Your task to perform on an android device: Is it going to rain tomorrow? Image 0: 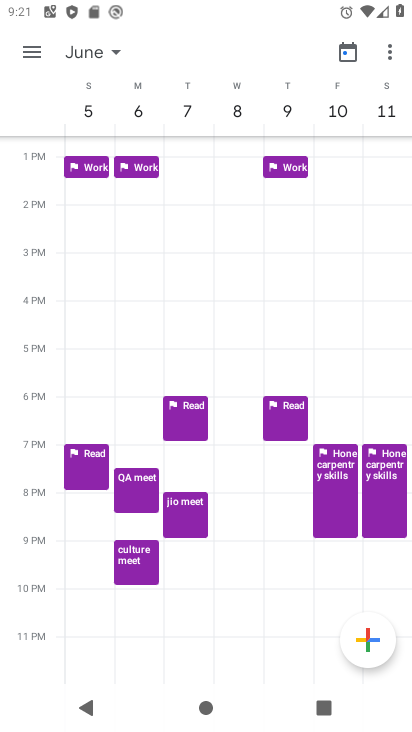
Step 0: press home button
Your task to perform on an android device: Is it going to rain tomorrow? Image 1: 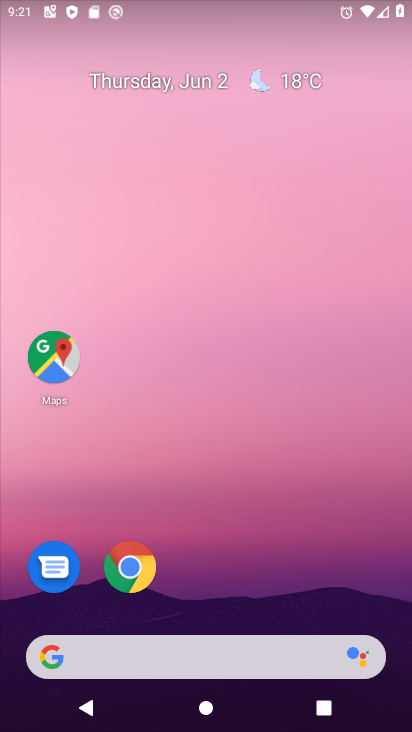
Step 1: click (290, 93)
Your task to perform on an android device: Is it going to rain tomorrow? Image 2: 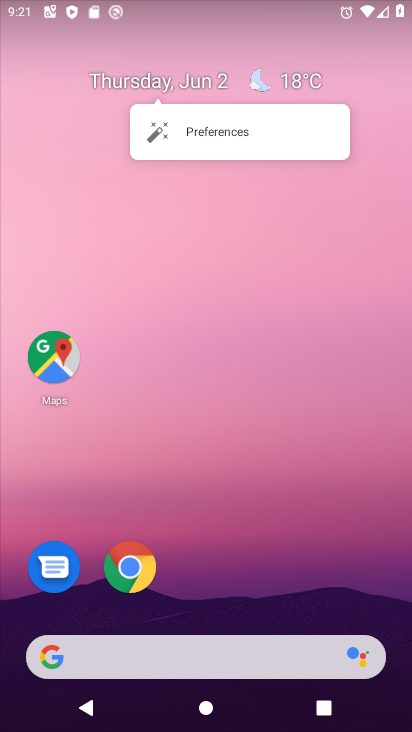
Step 2: click (276, 83)
Your task to perform on an android device: Is it going to rain tomorrow? Image 3: 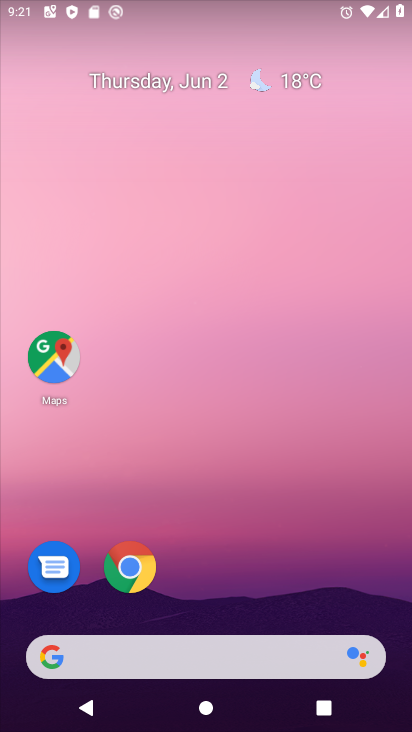
Step 3: click (312, 75)
Your task to perform on an android device: Is it going to rain tomorrow? Image 4: 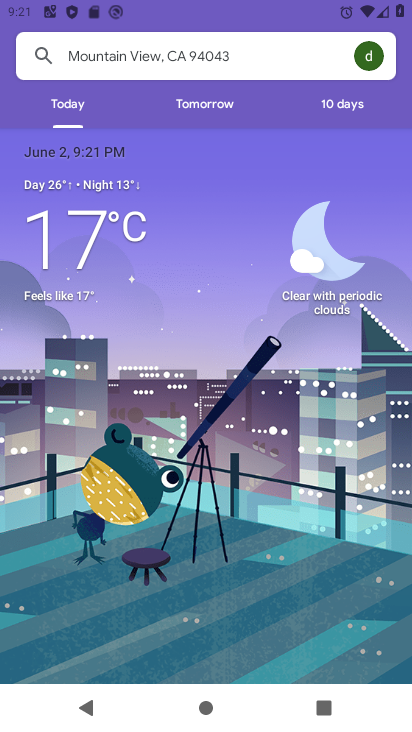
Step 4: click (194, 111)
Your task to perform on an android device: Is it going to rain tomorrow? Image 5: 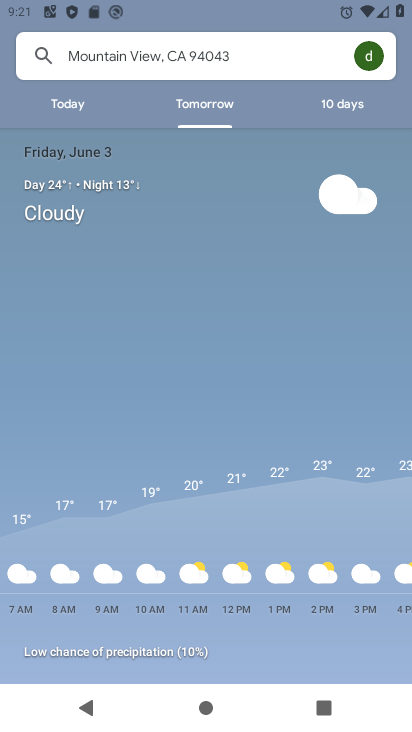
Step 5: task complete